Your task to perform on an android device: Open the phone app and click the voicemail tab. Image 0: 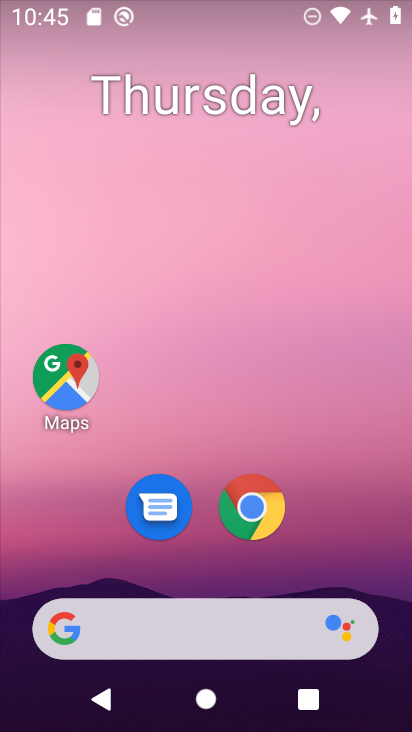
Step 0: drag from (381, 605) to (286, 31)
Your task to perform on an android device: Open the phone app and click the voicemail tab. Image 1: 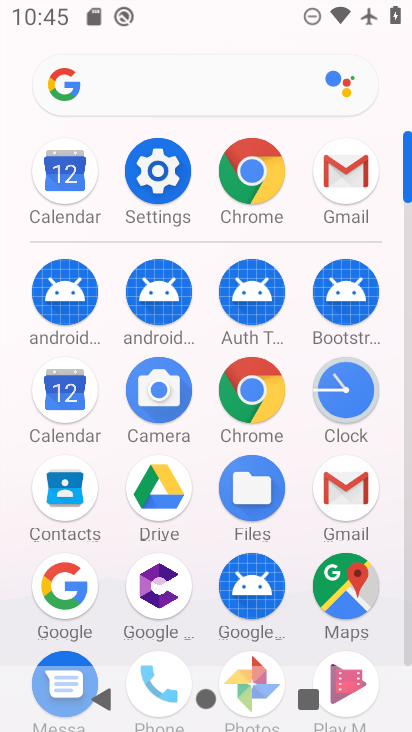
Step 1: drag from (15, 620) to (9, 364)
Your task to perform on an android device: Open the phone app and click the voicemail tab. Image 2: 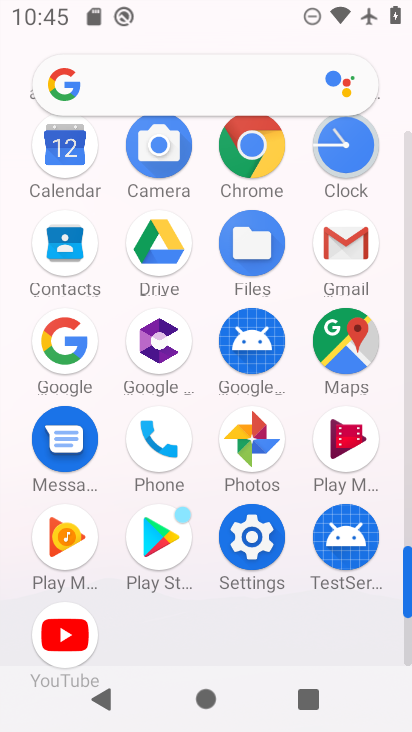
Step 2: click (155, 428)
Your task to perform on an android device: Open the phone app and click the voicemail tab. Image 3: 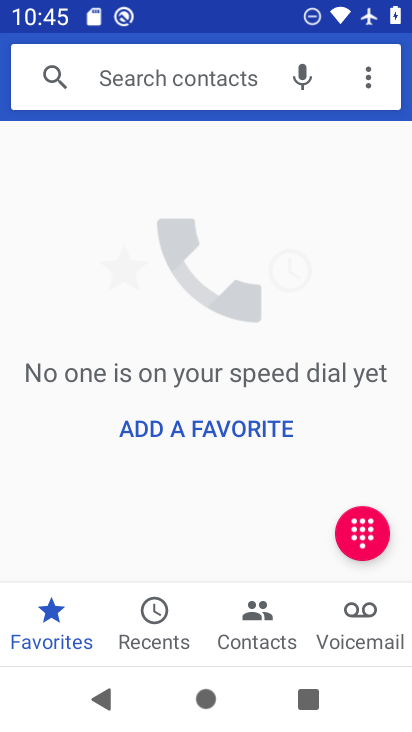
Step 3: click (349, 611)
Your task to perform on an android device: Open the phone app and click the voicemail tab. Image 4: 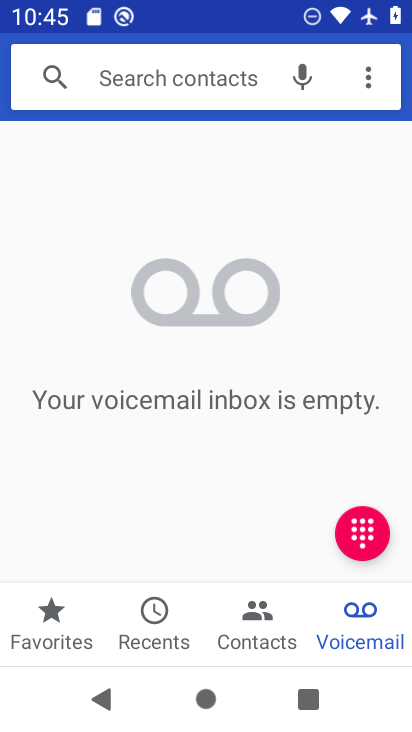
Step 4: task complete